Your task to perform on an android device: Go to display settings Image 0: 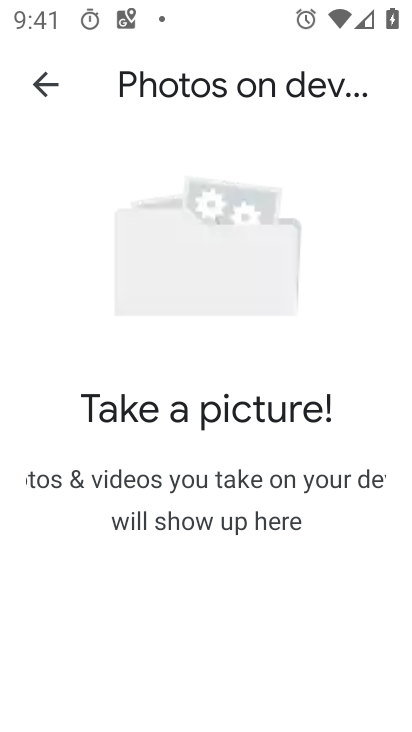
Step 0: task complete